Your task to perform on an android device: Do I have any events tomorrow? Image 0: 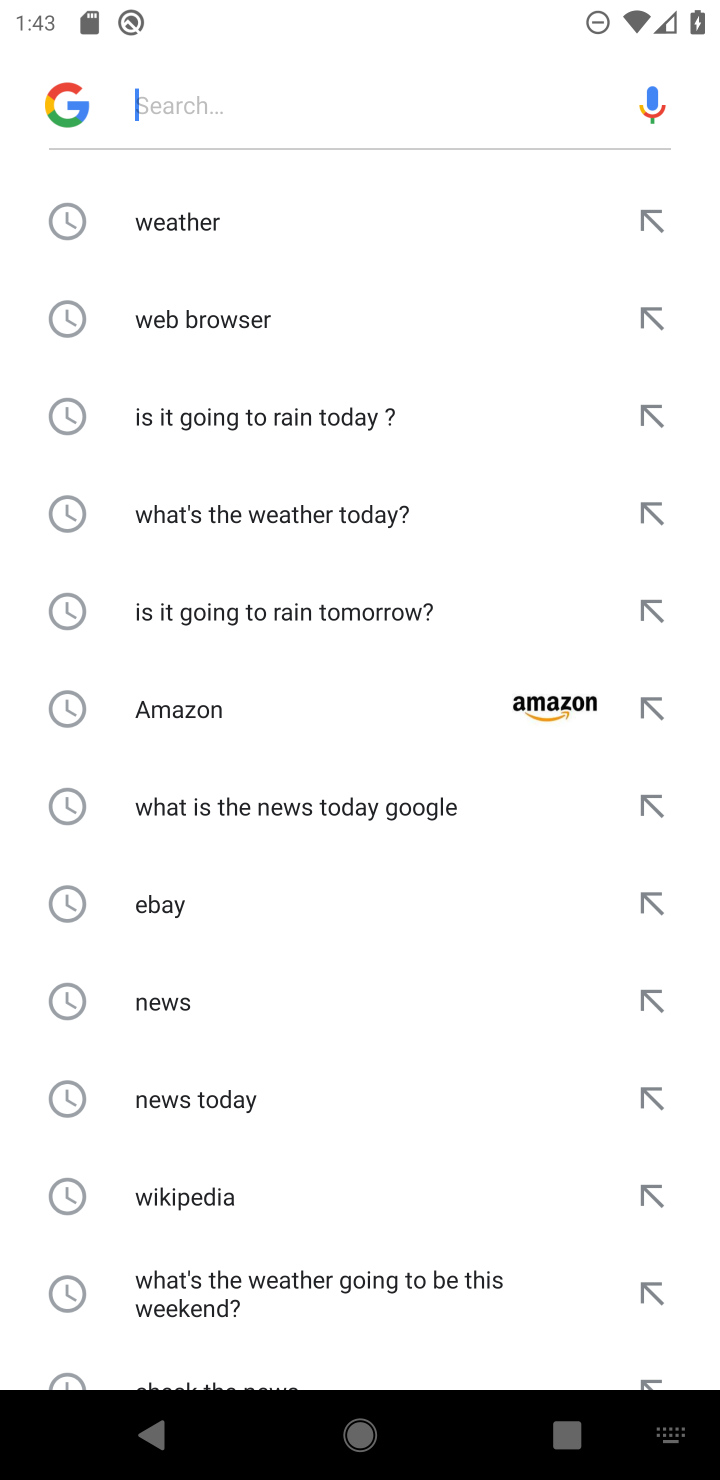
Step 0: press home button
Your task to perform on an android device: Do I have any events tomorrow? Image 1: 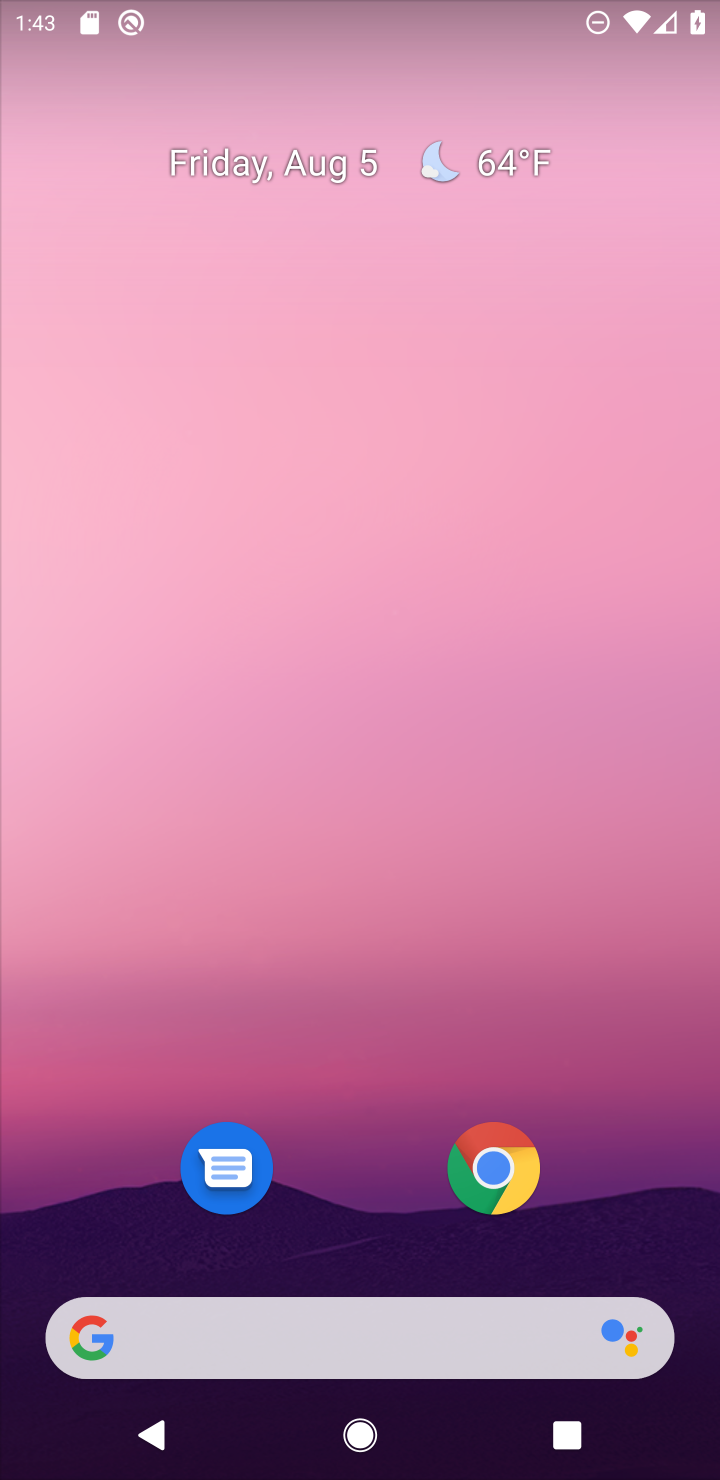
Step 1: drag from (605, 1179) to (351, 145)
Your task to perform on an android device: Do I have any events tomorrow? Image 2: 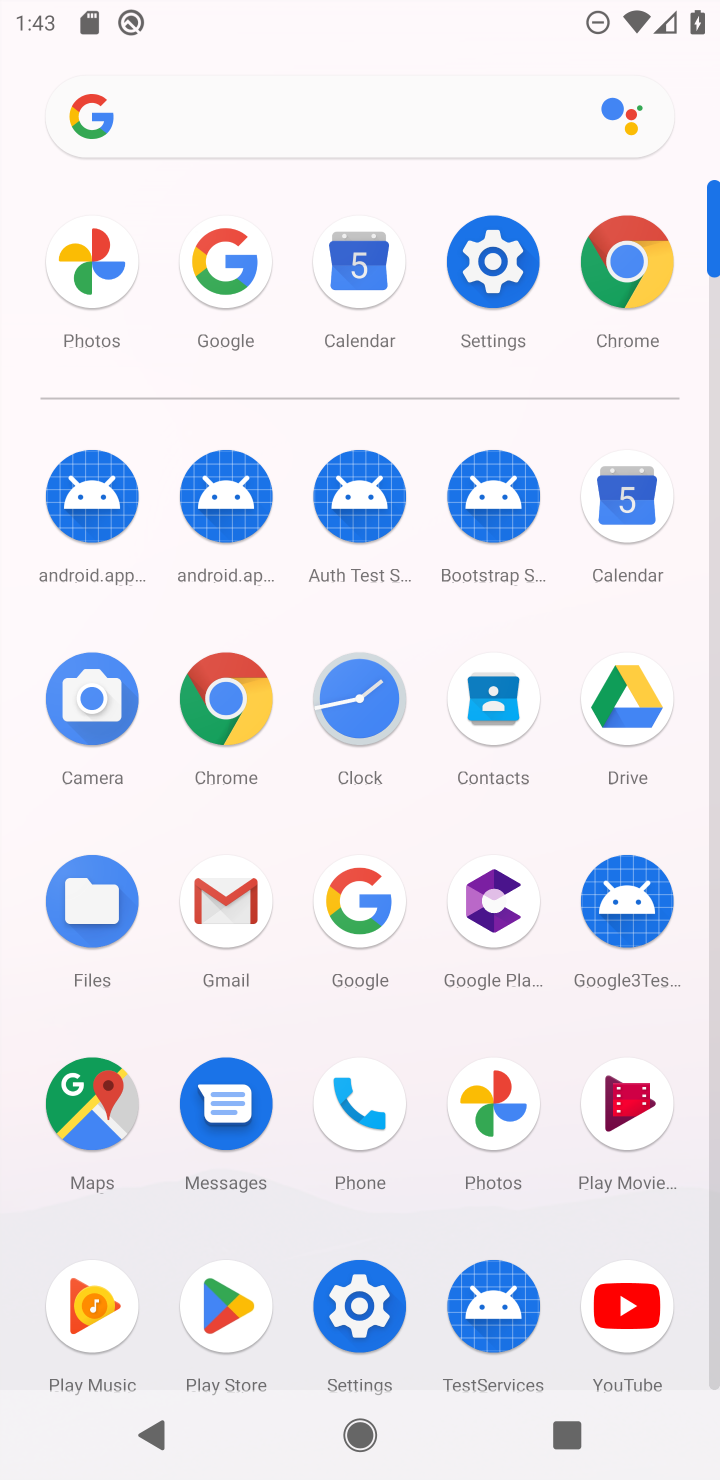
Step 2: click (657, 442)
Your task to perform on an android device: Do I have any events tomorrow? Image 3: 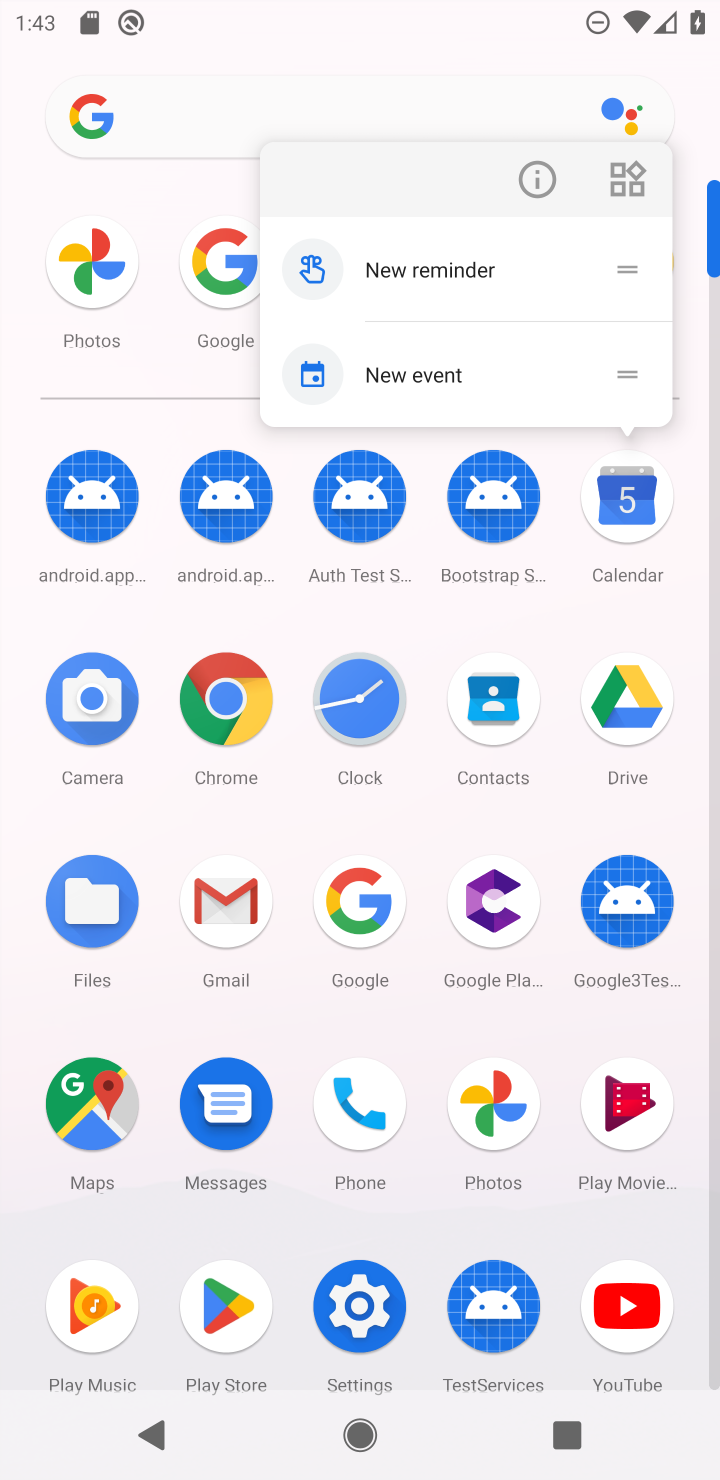
Step 3: click (643, 497)
Your task to perform on an android device: Do I have any events tomorrow? Image 4: 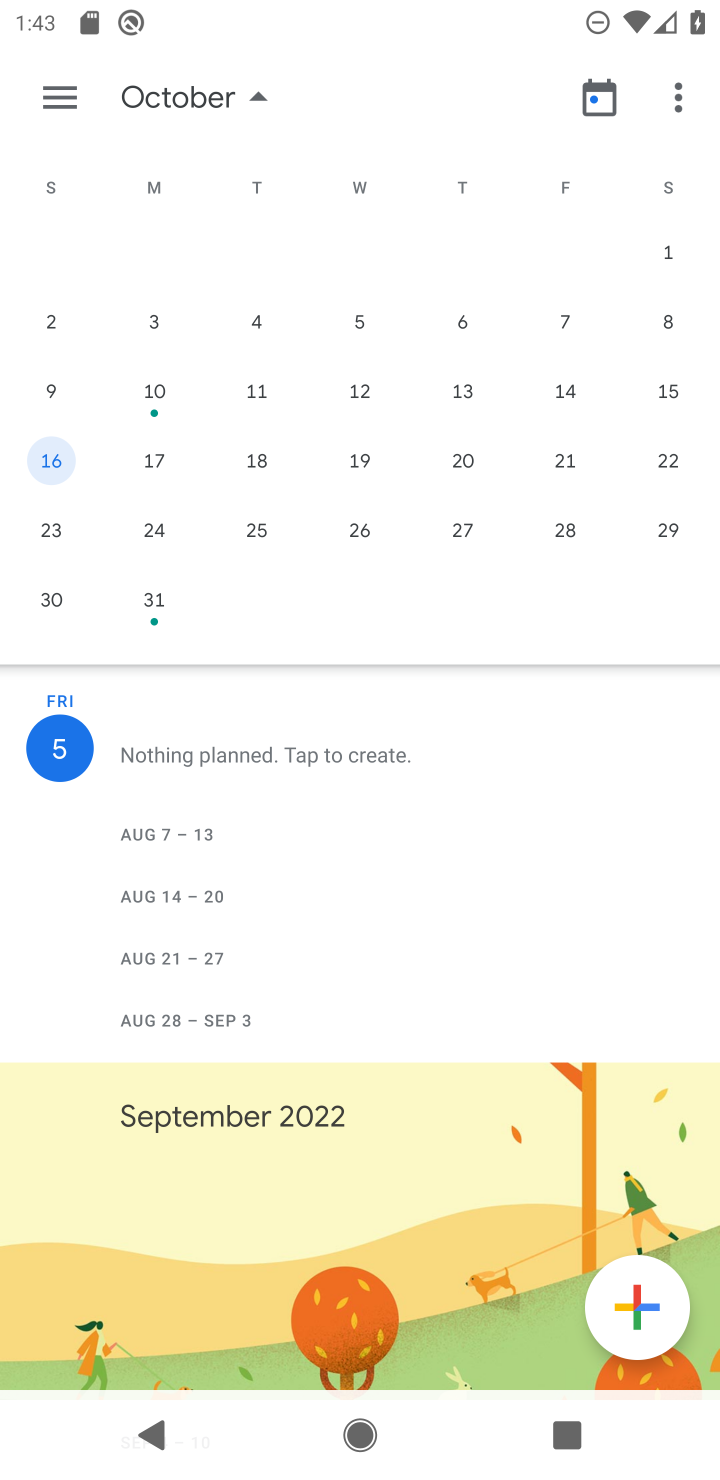
Step 4: task complete